Your task to perform on an android device: turn on wifi Image 0: 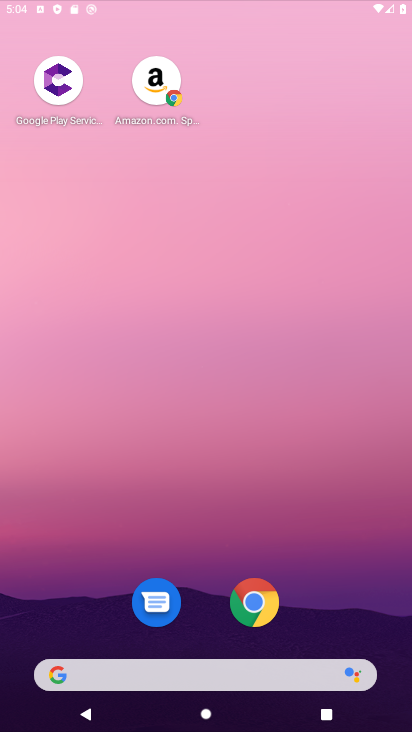
Step 0: press home button
Your task to perform on an android device: turn on wifi Image 1: 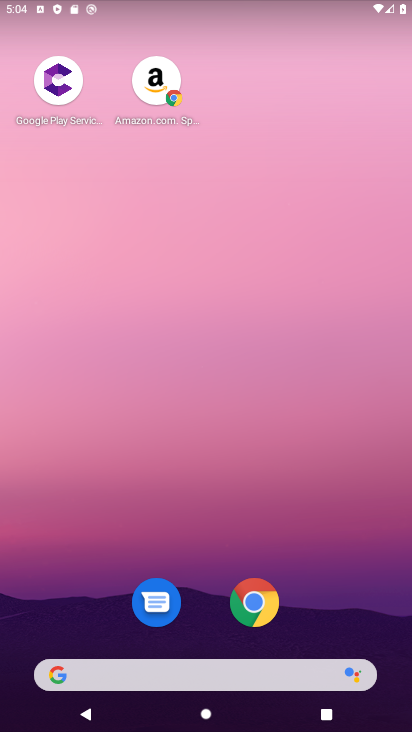
Step 1: drag from (293, 572) to (269, 0)
Your task to perform on an android device: turn on wifi Image 2: 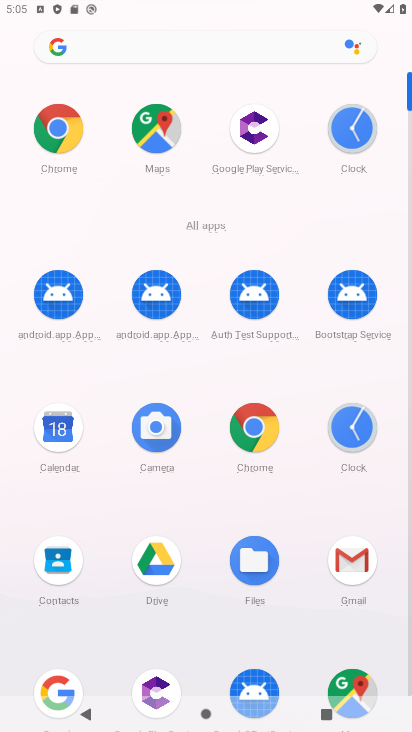
Step 2: drag from (285, 619) to (360, 41)
Your task to perform on an android device: turn on wifi Image 3: 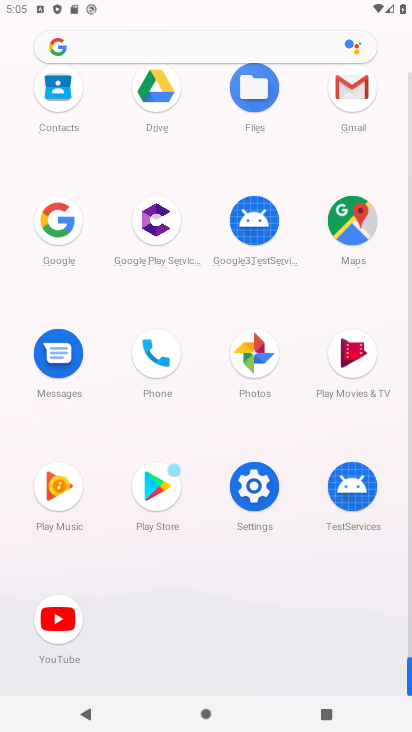
Step 3: click (257, 498)
Your task to perform on an android device: turn on wifi Image 4: 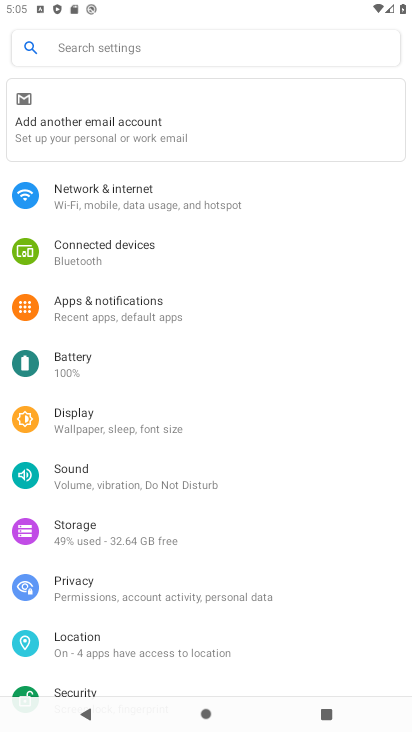
Step 4: click (149, 201)
Your task to perform on an android device: turn on wifi Image 5: 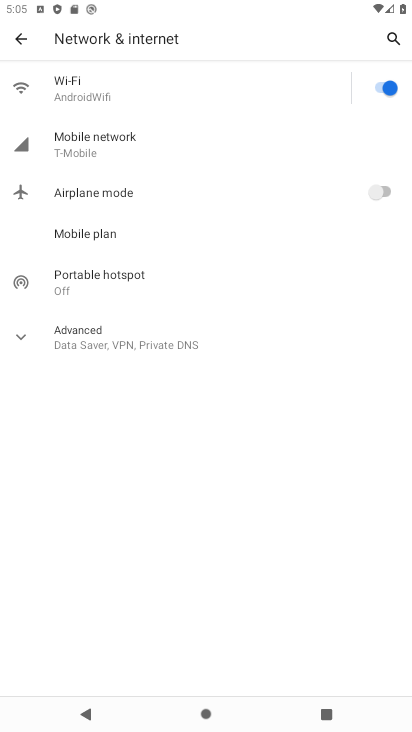
Step 5: task complete